Your task to perform on an android device: change the upload size in google photos Image 0: 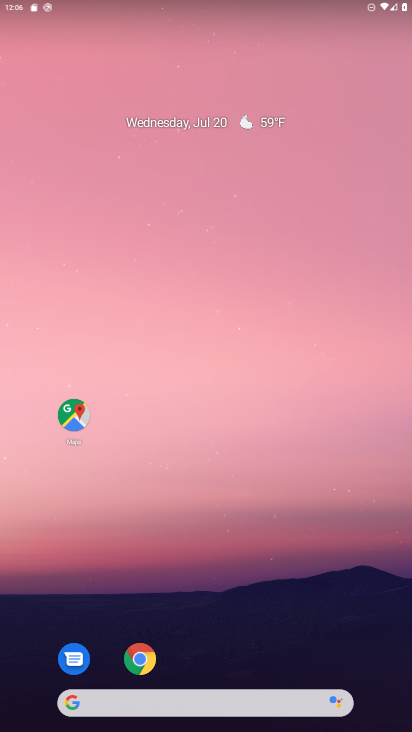
Step 0: drag from (286, 557) to (204, 39)
Your task to perform on an android device: change the upload size in google photos Image 1: 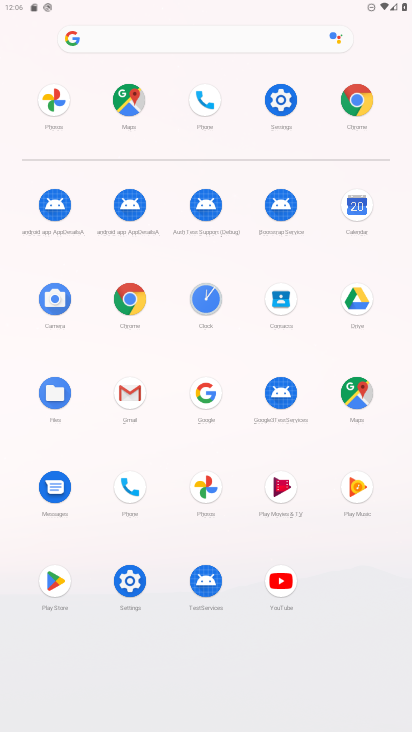
Step 1: click (204, 482)
Your task to perform on an android device: change the upload size in google photos Image 2: 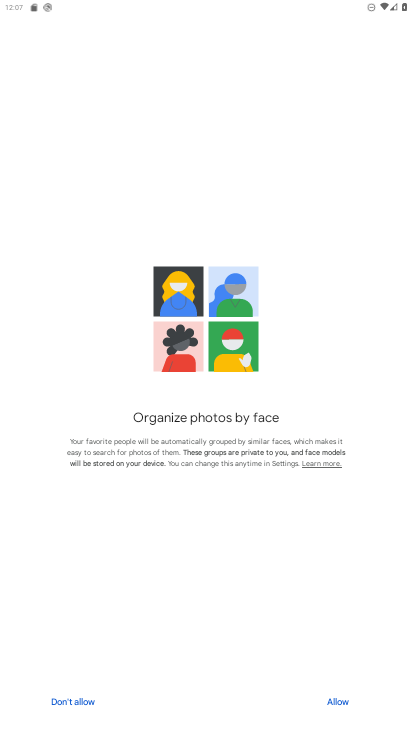
Step 2: click (338, 706)
Your task to perform on an android device: change the upload size in google photos Image 3: 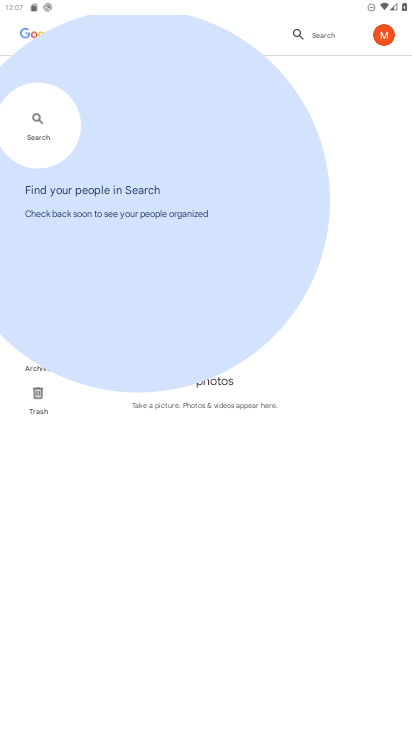
Step 3: click (335, 229)
Your task to perform on an android device: change the upload size in google photos Image 4: 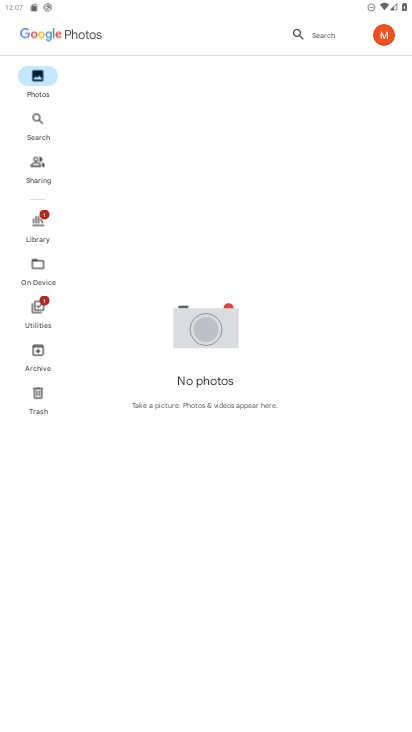
Step 4: click (387, 32)
Your task to perform on an android device: change the upload size in google photos Image 5: 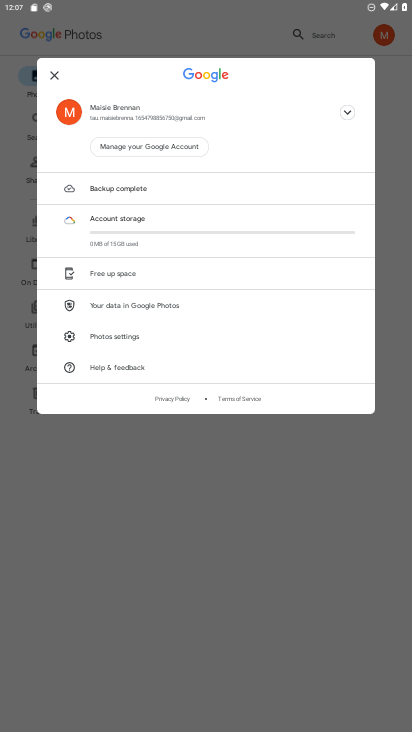
Step 5: click (121, 334)
Your task to perform on an android device: change the upload size in google photos Image 6: 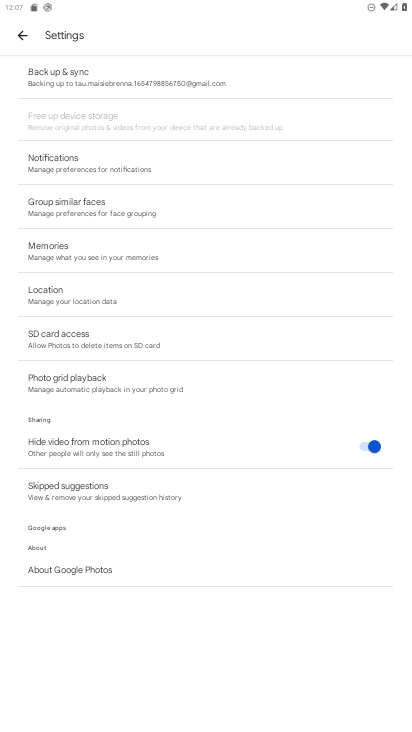
Step 6: click (193, 87)
Your task to perform on an android device: change the upload size in google photos Image 7: 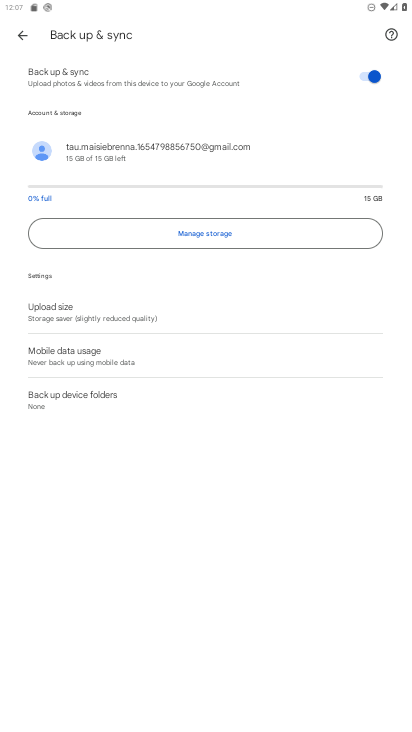
Step 7: click (111, 316)
Your task to perform on an android device: change the upload size in google photos Image 8: 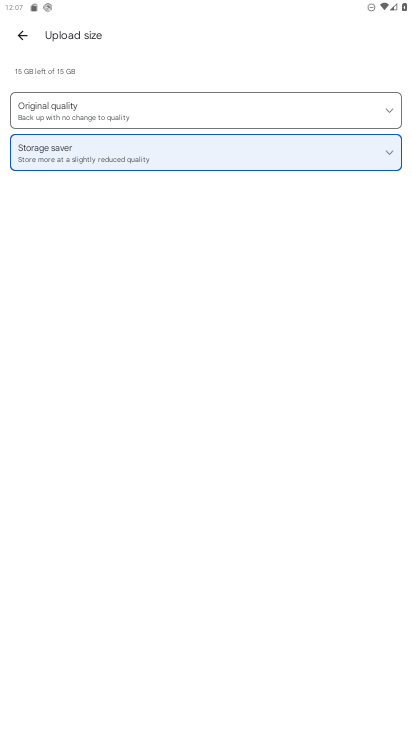
Step 8: click (144, 119)
Your task to perform on an android device: change the upload size in google photos Image 9: 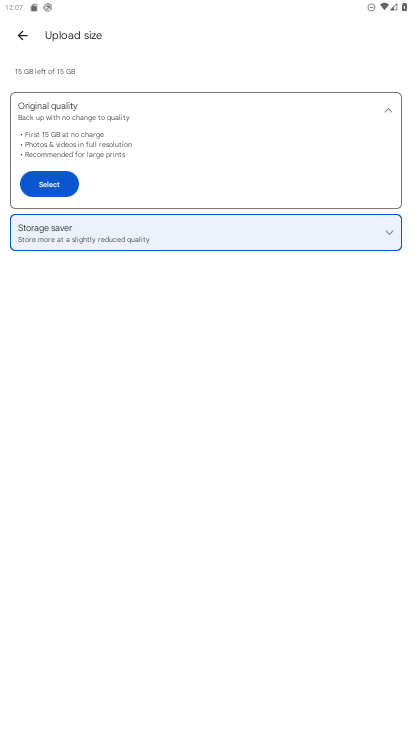
Step 9: click (54, 181)
Your task to perform on an android device: change the upload size in google photos Image 10: 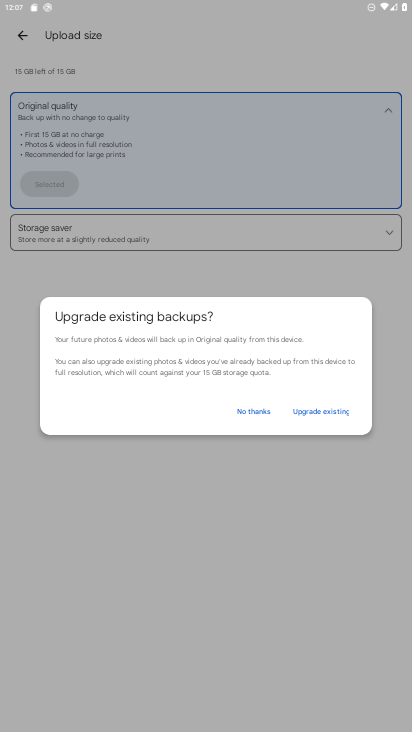
Step 10: click (254, 413)
Your task to perform on an android device: change the upload size in google photos Image 11: 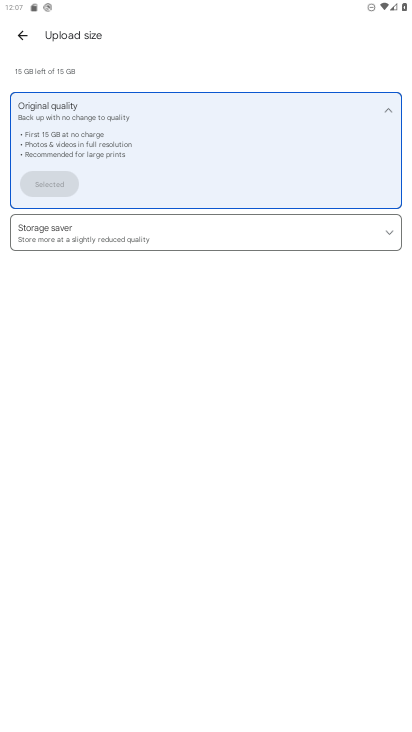
Step 11: task complete